Your task to perform on an android device: Open Google Chrome and click the shortcut for Amazon.com Image 0: 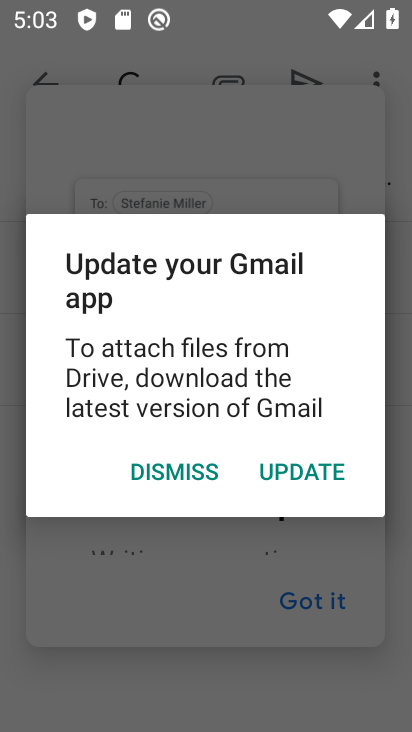
Step 0: press home button
Your task to perform on an android device: Open Google Chrome and click the shortcut for Amazon.com Image 1: 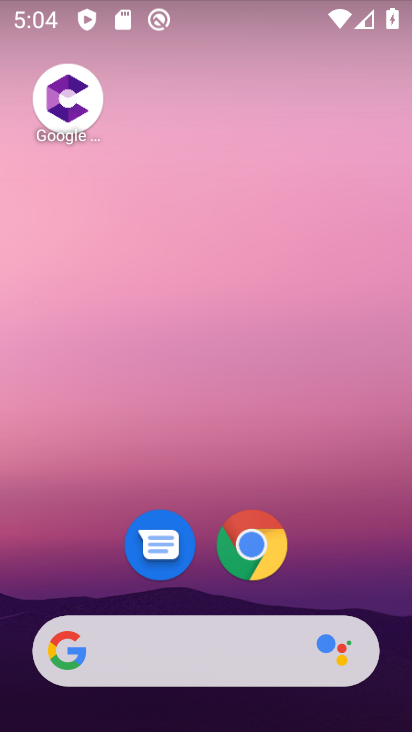
Step 1: click (246, 578)
Your task to perform on an android device: Open Google Chrome and click the shortcut for Amazon.com Image 2: 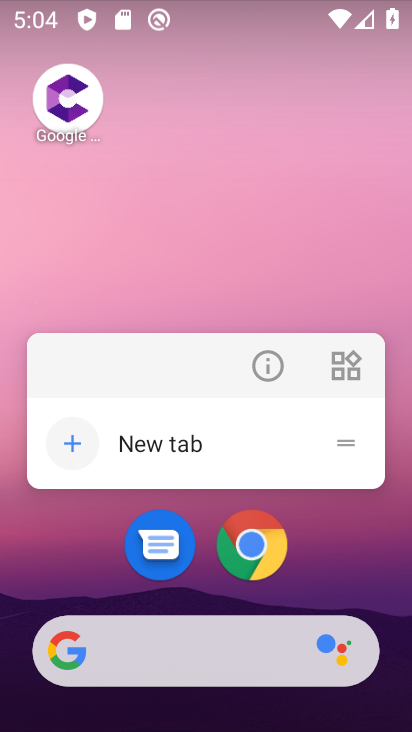
Step 2: click (246, 554)
Your task to perform on an android device: Open Google Chrome and click the shortcut for Amazon.com Image 3: 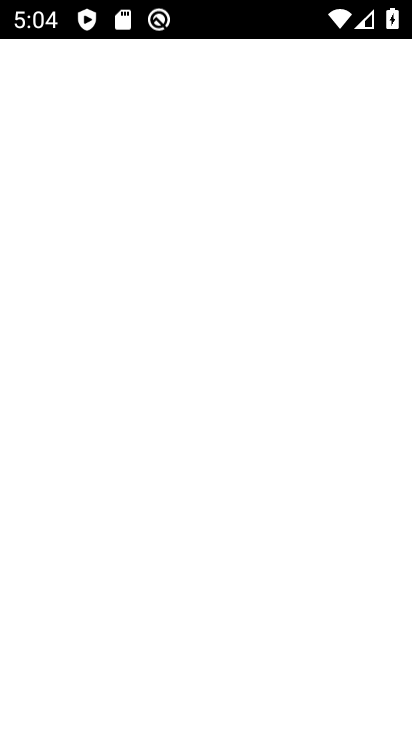
Step 3: click (246, 554)
Your task to perform on an android device: Open Google Chrome and click the shortcut for Amazon.com Image 4: 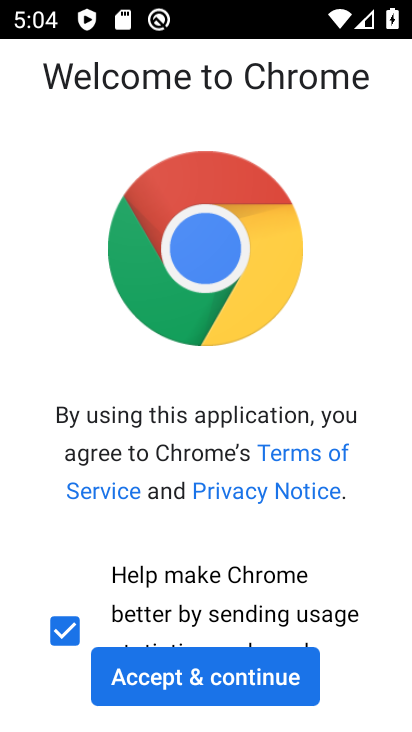
Step 4: click (260, 670)
Your task to perform on an android device: Open Google Chrome and click the shortcut for Amazon.com Image 5: 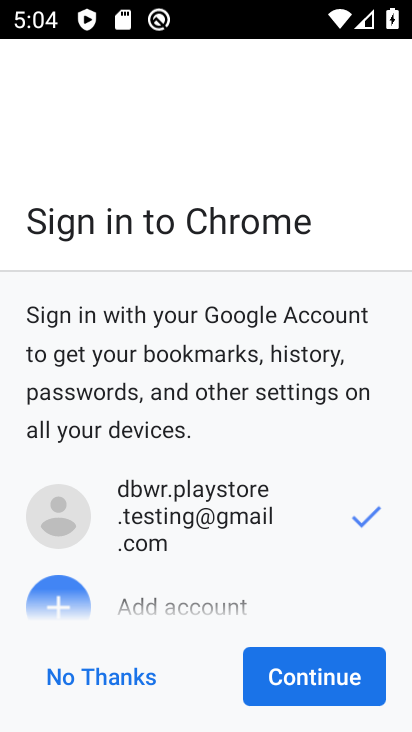
Step 5: click (302, 693)
Your task to perform on an android device: Open Google Chrome and click the shortcut for Amazon.com Image 6: 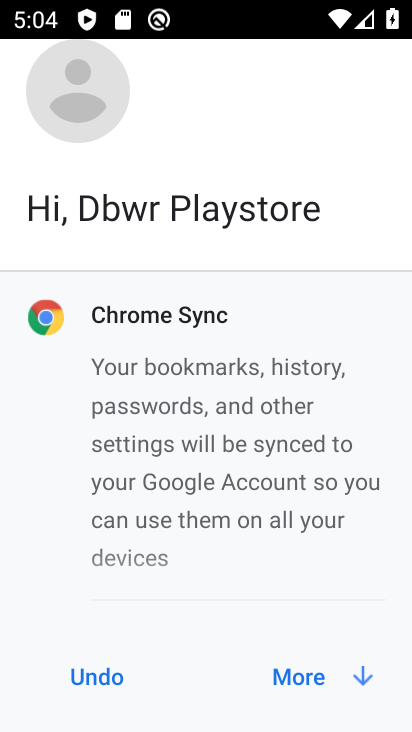
Step 6: click (298, 677)
Your task to perform on an android device: Open Google Chrome and click the shortcut for Amazon.com Image 7: 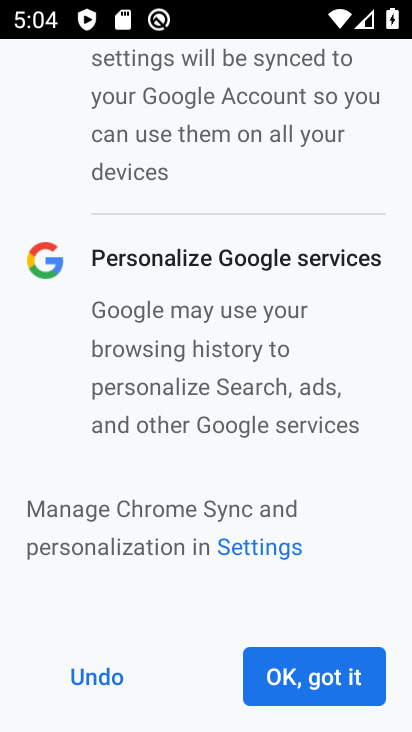
Step 7: click (298, 677)
Your task to perform on an android device: Open Google Chrome and click the shortcut for Amazon.com Image 8: 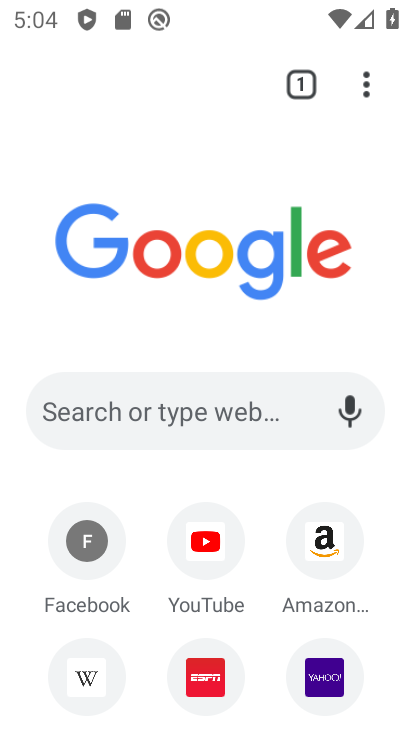
Step 8: click (327, 548)
Your task to perform on an android device: Open Google Chrome and click the shortcut for Amazon.com Image 9: 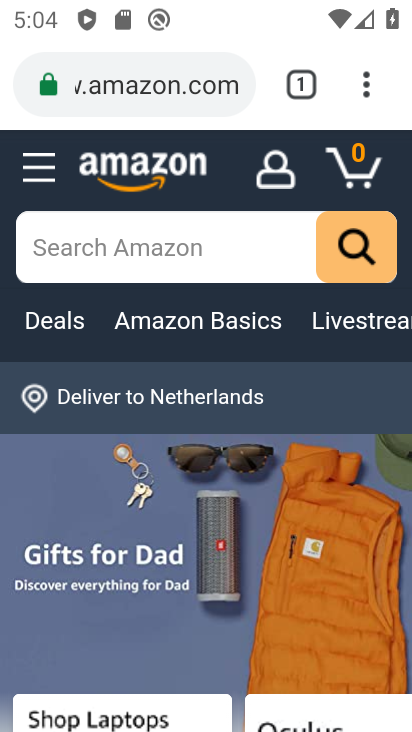
Step 9: task complete